Your task to perform on an android device: check google app version Image 0: 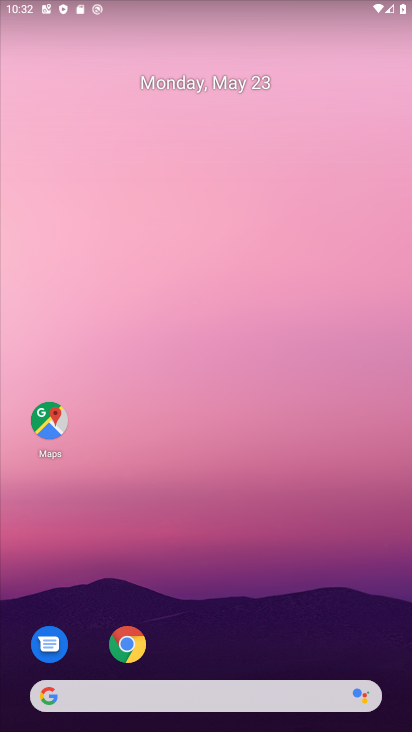
Step 0: drag from (257, 721) to (77, 189)
Your task to perform on an android device: check google app version Image 1: 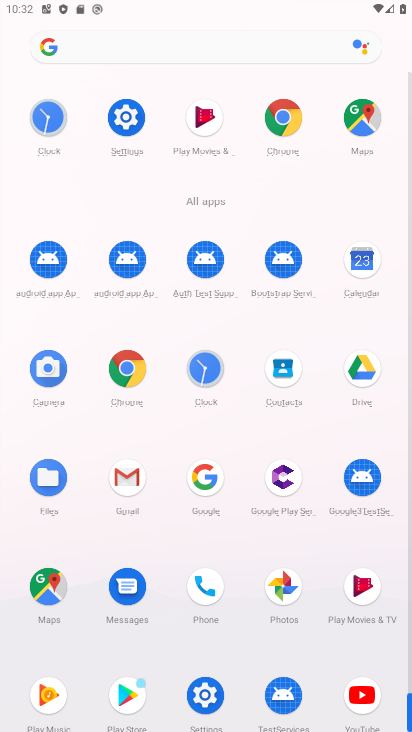
Step 1: click (213, 476)
Your task to perform on an android device: check google app version Image 2: 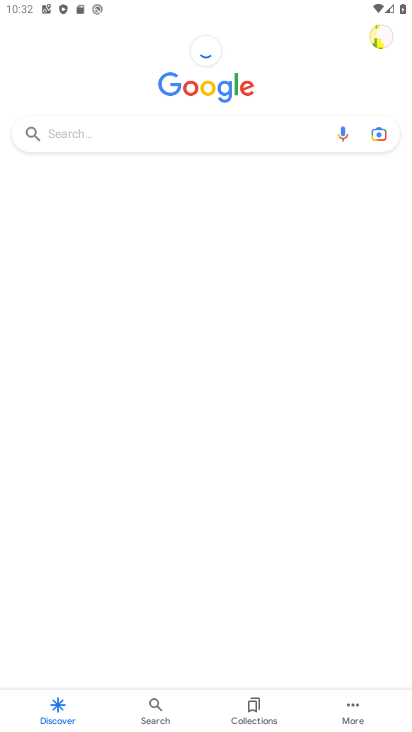
Step 2: click (362, 706)
Your task to perform on an android device: check google app version Image 3: 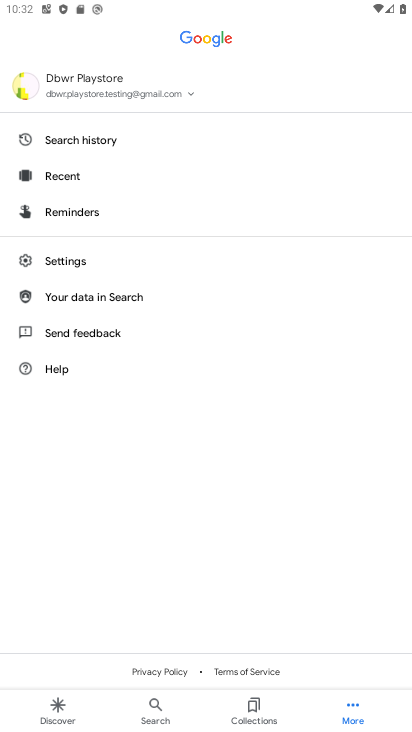
Step 3: click (68, 260)
Your task to perform on an android device: check google app version Image 4: 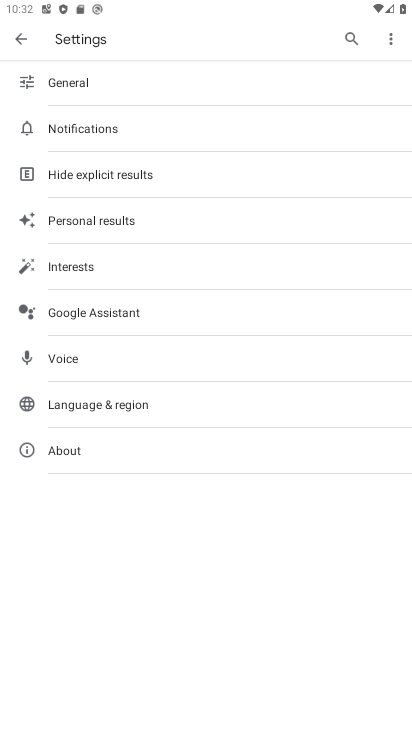
Step 4: click (69, 442)
Your task to perform on an android device: check google app version Image 5: 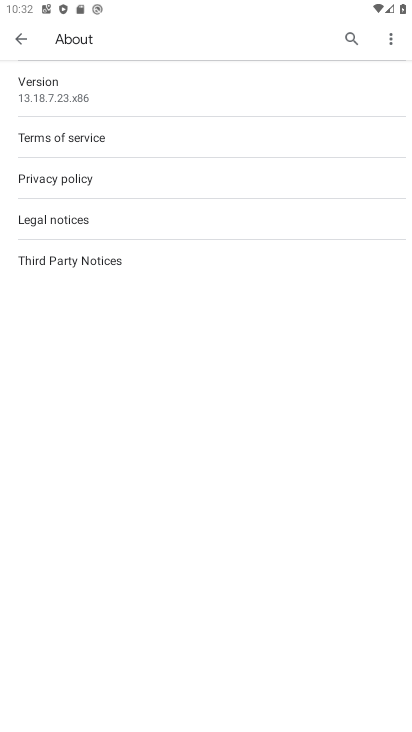
Step 5: task complete